Your task to perform on an android device: Go to display settings Image 0: 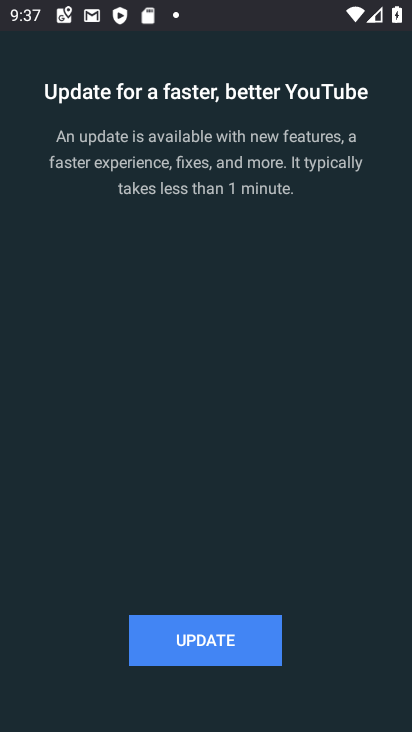
Step 0: press home button
Your task to perform on an android device: Go to display settings Image 1: 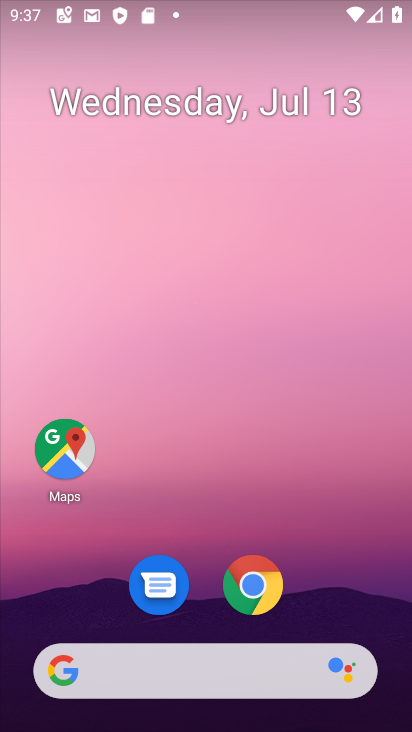
Step 1: drag from (316, 564) to (270, 35)
Your task to perform on an android device: Go to display settings Image 2: 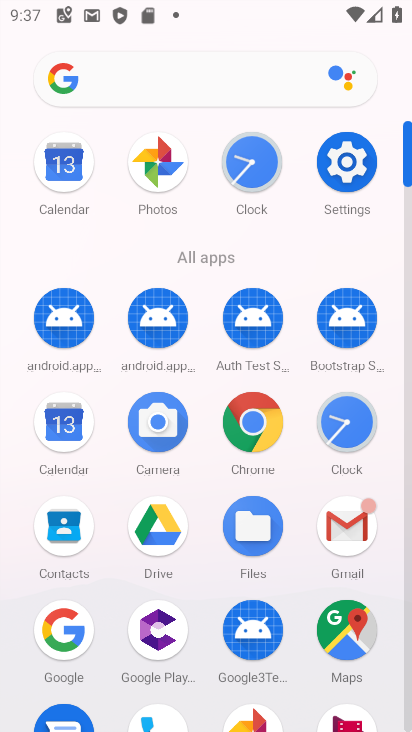
Step 2: click (349, 166)
Your task to perform on an android device: Go to display settings Image 3: 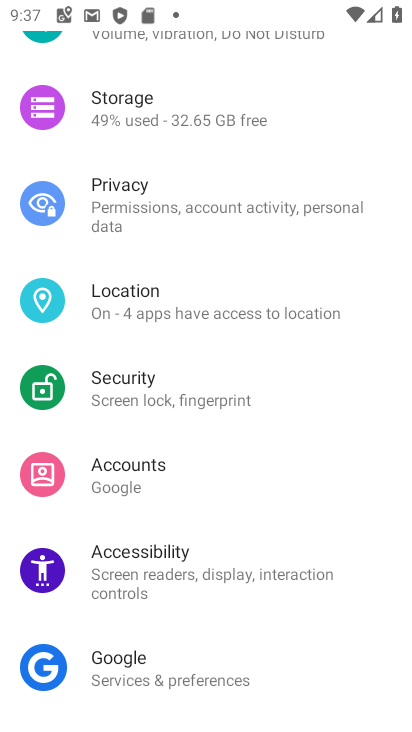
Step 3: drag from (198, 113) to (211, 638)
Your task to perform on an android device: Go to display settings Image 4: 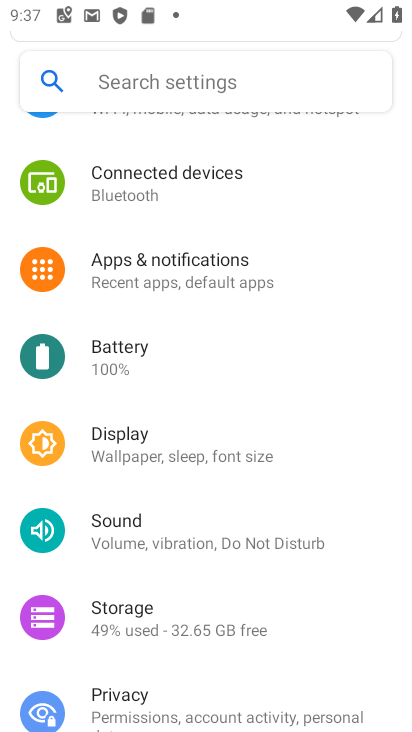
Step 4: click (117, 442)
Your task to perform on an android device: Go to display settings Image 5: 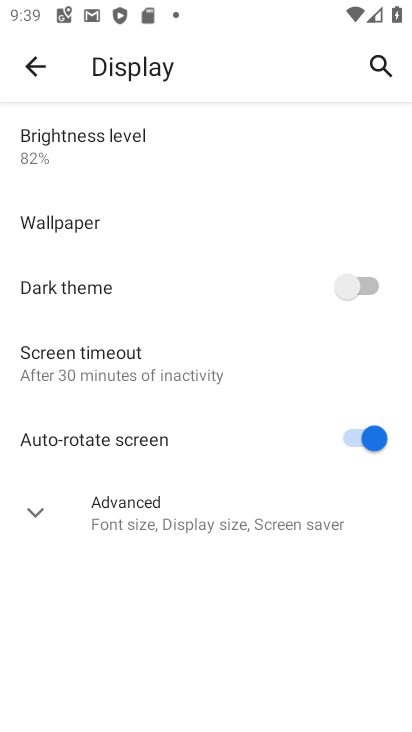
Step 5: task complete